Your task to perform on an android device: toggle sleep mode Image 0: 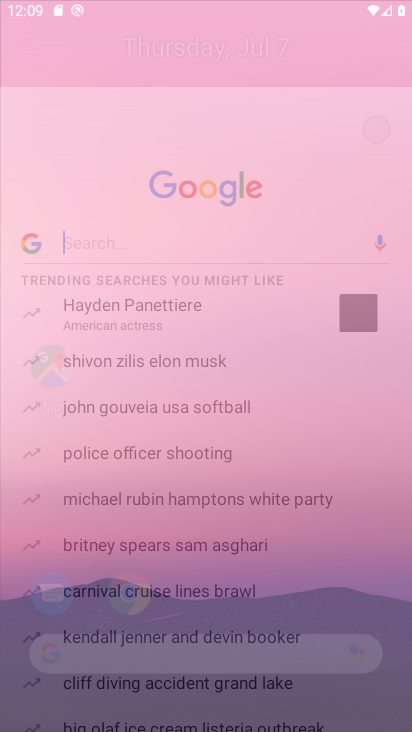
Step 0: drag from (198, 623) to (157, 215)
Your task to perform on an android device: toggle sleep mode Image 1: 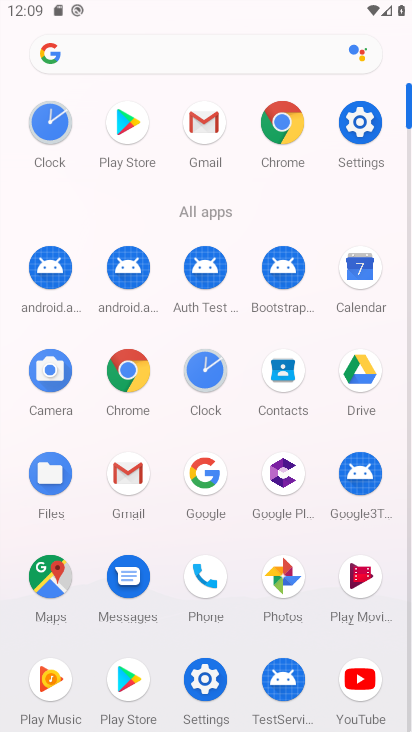
Step 1: click (360, 119)
Your task to perform on an android device: toggle sleep mode Image 2: 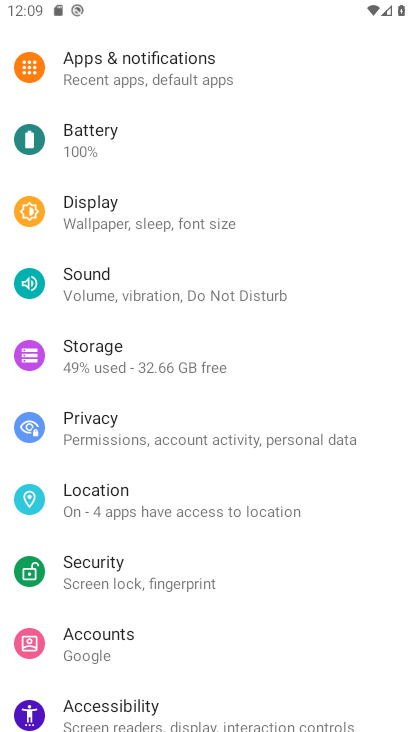
Step 2: task complete